Your task to perform on an android device: Open calendar and show me the third week of next month Image 0: 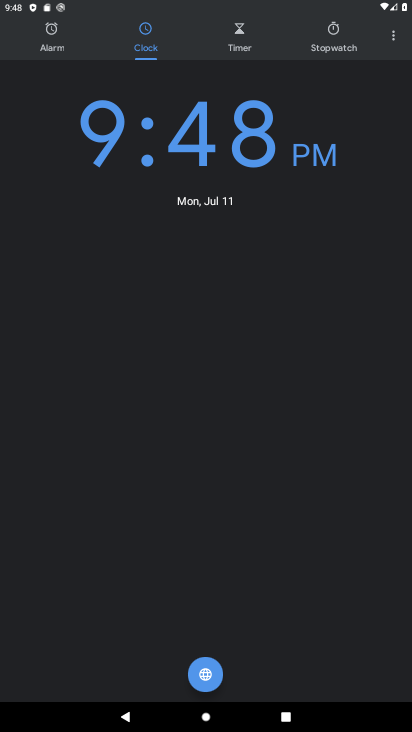
Step 0: press home button
Your task to perform on an android device: Open calendar and show me the third week of next month Image 1: 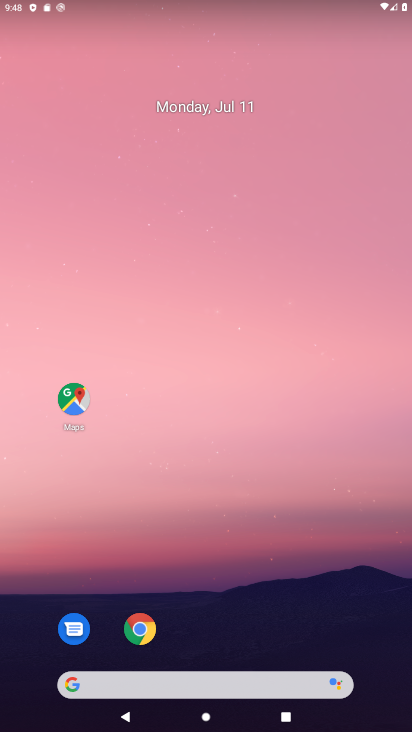
Step 1: drag from (254, 624) to (247, 107)
Your task to perform on an android device: Open calendar and show me the third week of next month Image 2: 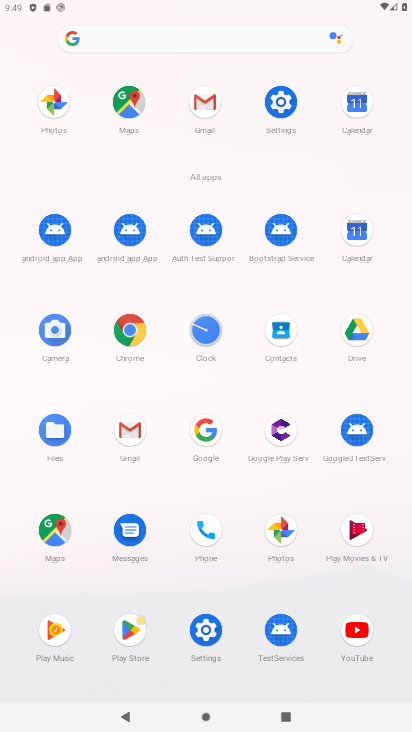
Step 2: click (356, 114)
Your task to perform on an android device: Open calendar and show me the third week of next month Image 3: 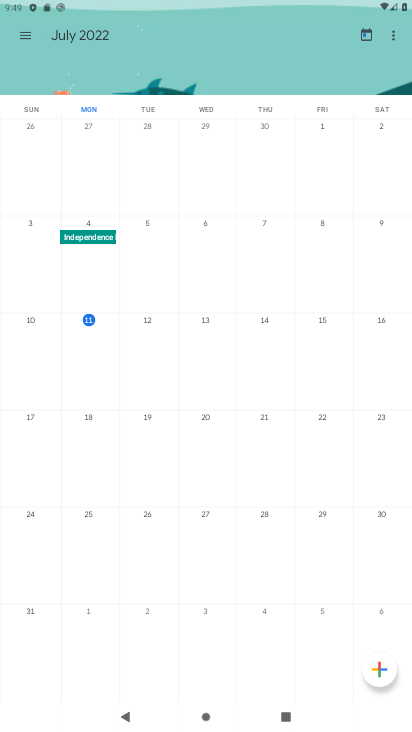
Step 3: click (150, 508)
Your task to perform on an android device: Open calendar and show me the third week of next month Image 4: 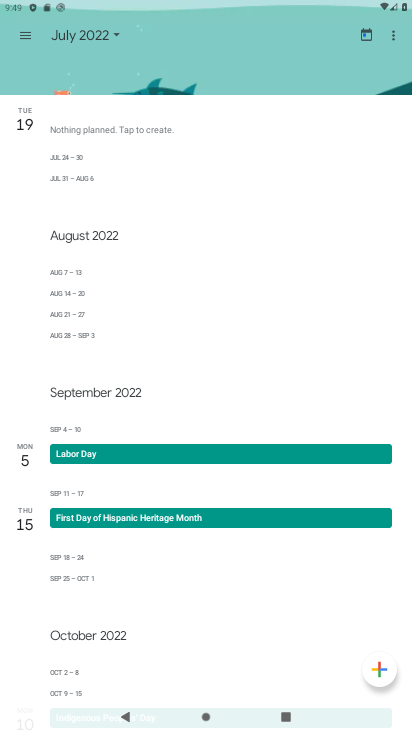
Step 4: task complete